Your task to perform on an android device: open app "Pluto TV - Live TV and Movies" Image 0: 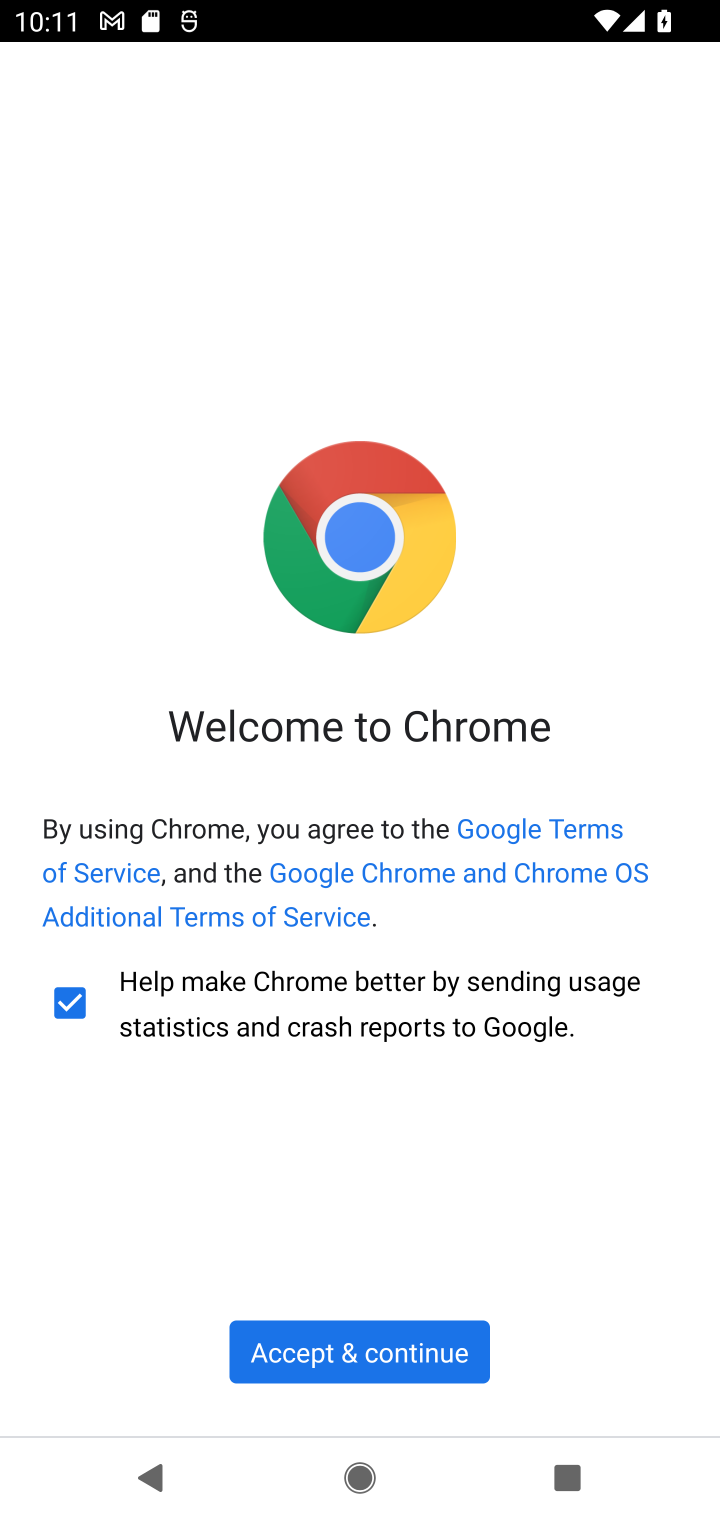
Step 0: press home button
Your task to perform on an android device: open app "Pluto TV - Live TV and Movies" Image 1: 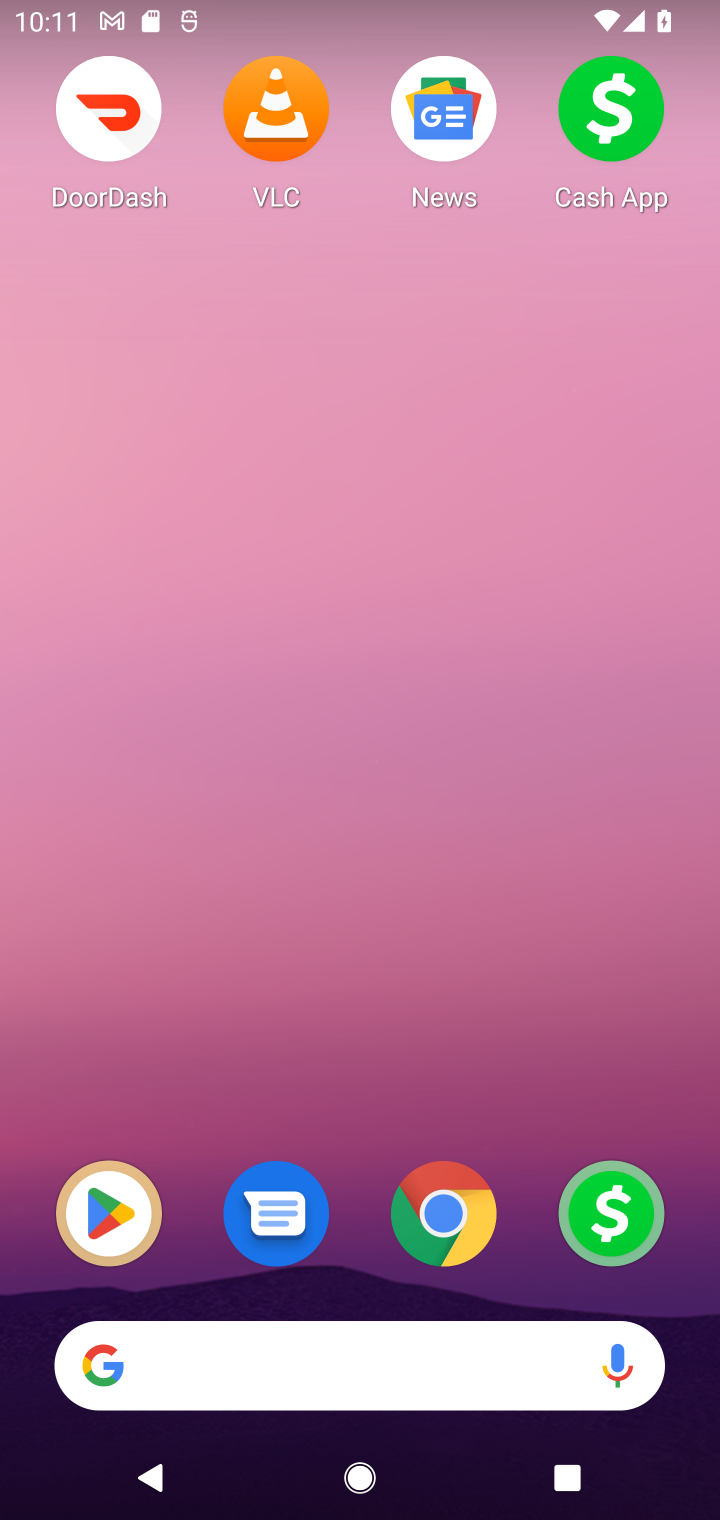
Step 1: click (115, 1229)
Your task to perform on an android device: open app "Pluto TV - Live TV and Movies" Image 2: 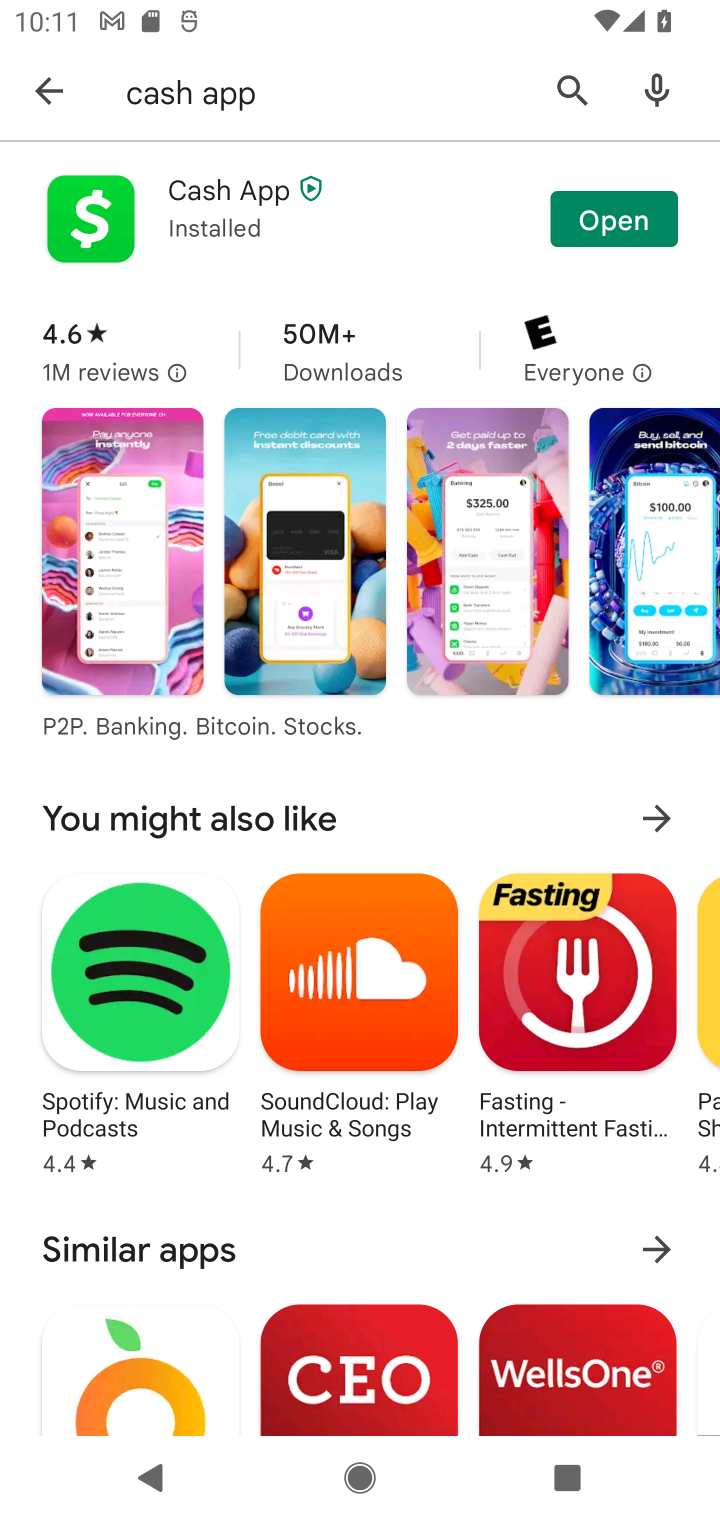
Step 2: click (46, 67)
Your task to perform on an android device: open app "Pluto TV - Live TV and Movies" Image 3: 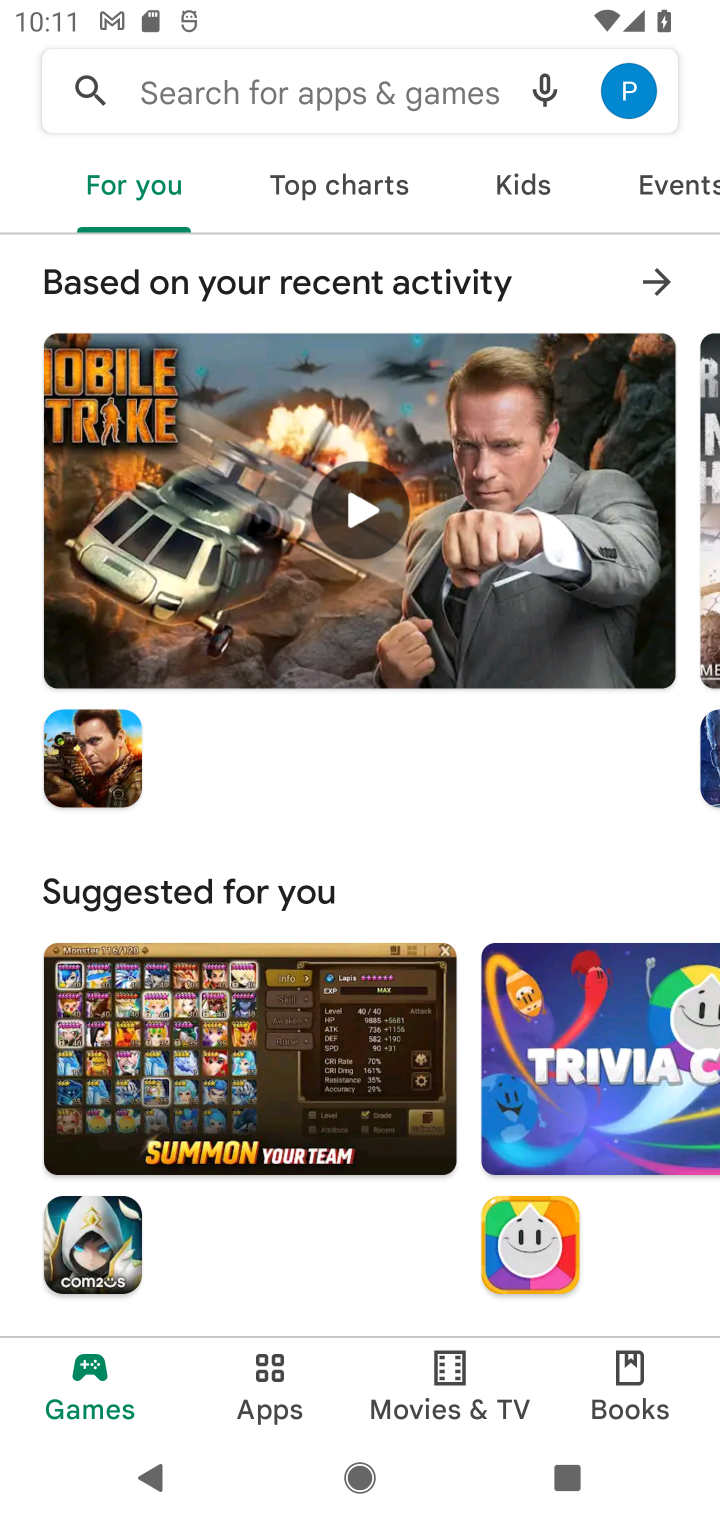
Step 3: click (210, 67)
Your task to perform on an android device: open app "Pluto TV - Live TV and Movies" Image 4: 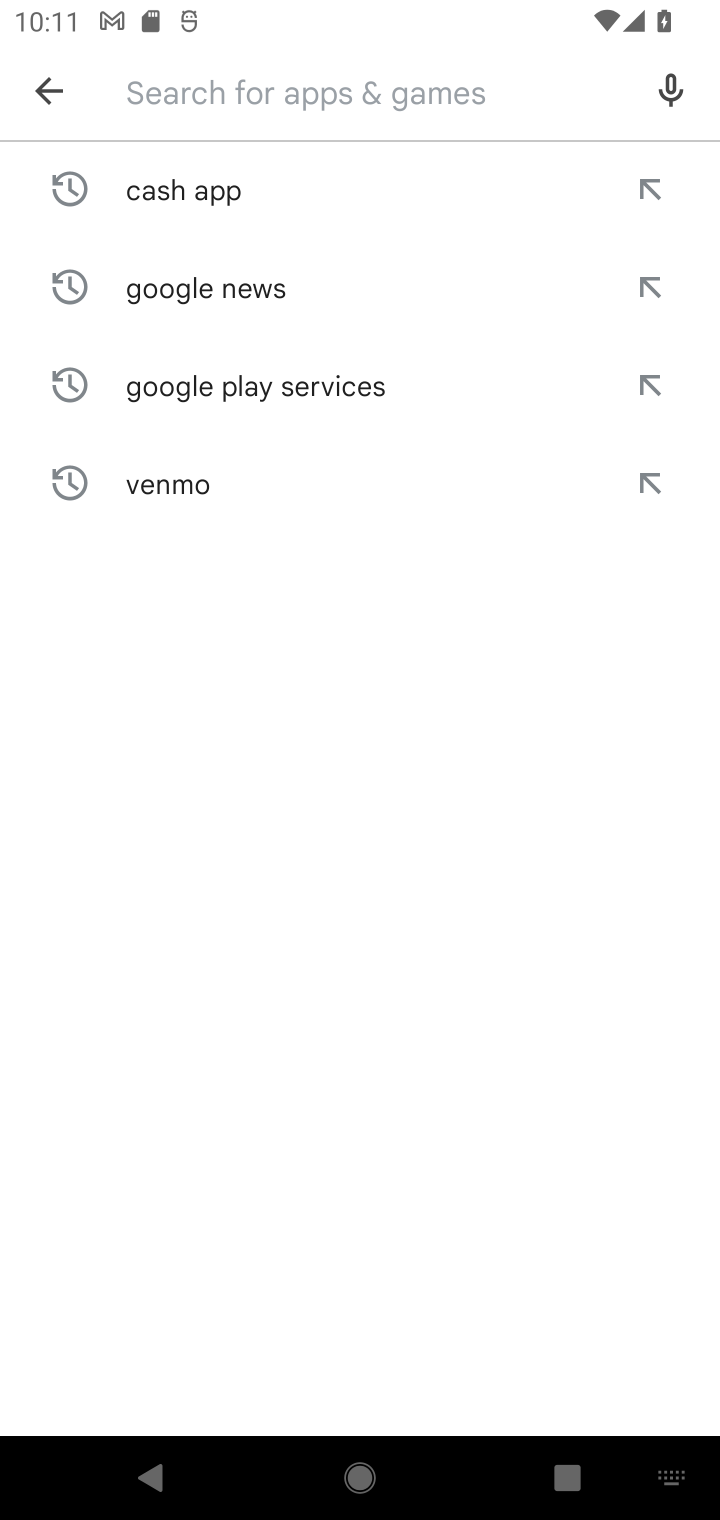
Step 4: type "Pluto TV - Live TV and Movies"
Your task to perform on an android device: open app "Pluto TV - Live TV and Movies" Image 5: 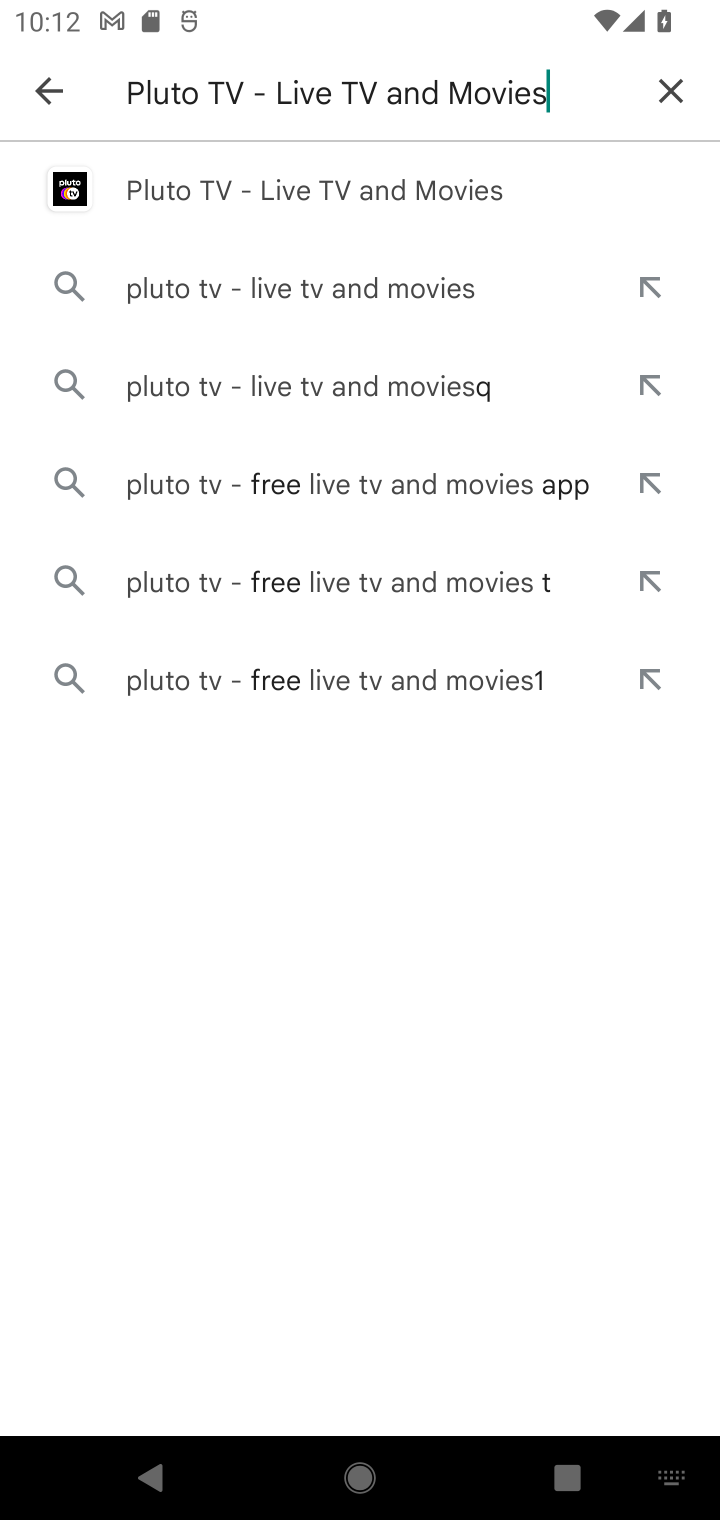
Step 5: click (325, 206)
Your task to perform on an android device: open app "Pluto TV - Live TV and Movies" Image 6: 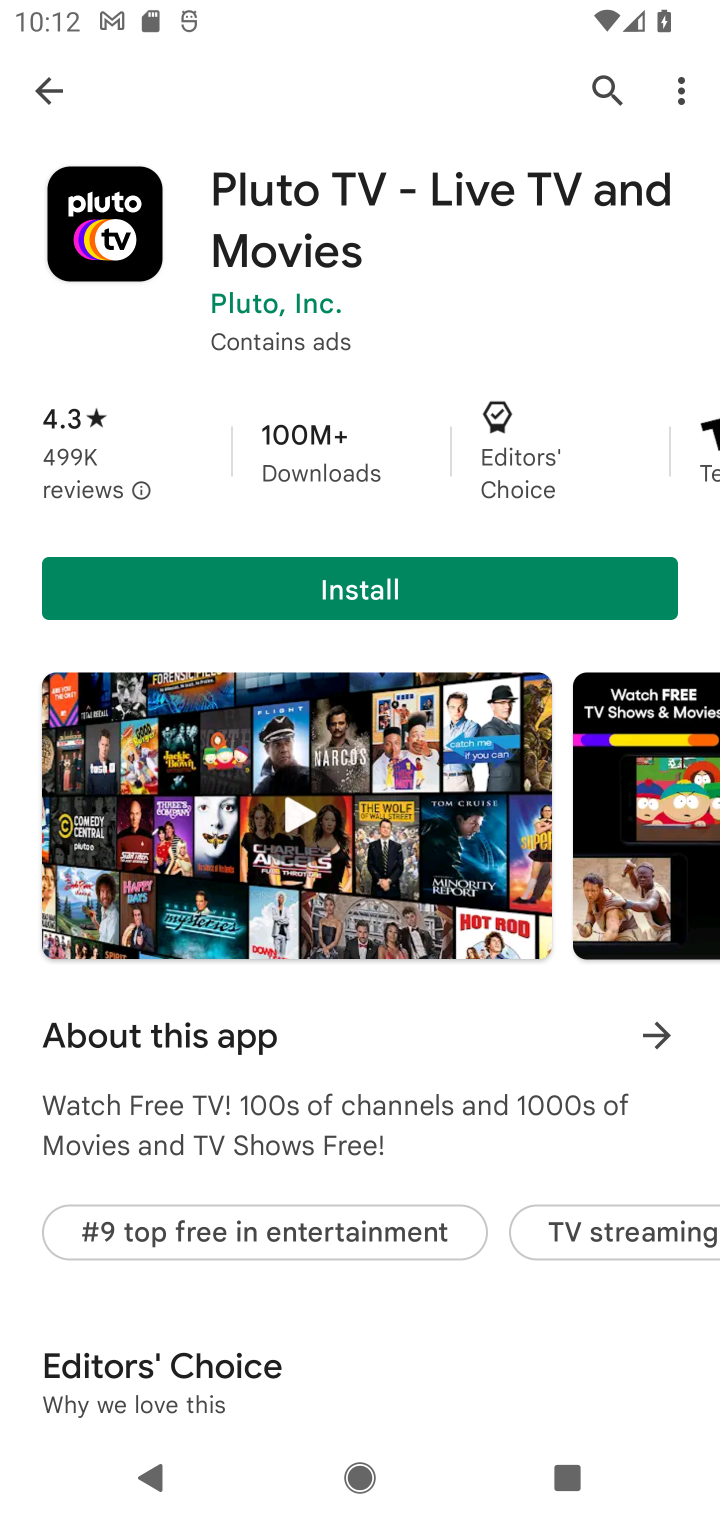
Step 6: click (334, 592)
Your task to perform on an android device: open app "Pluto TV - Live TV and Movies" Image 7: 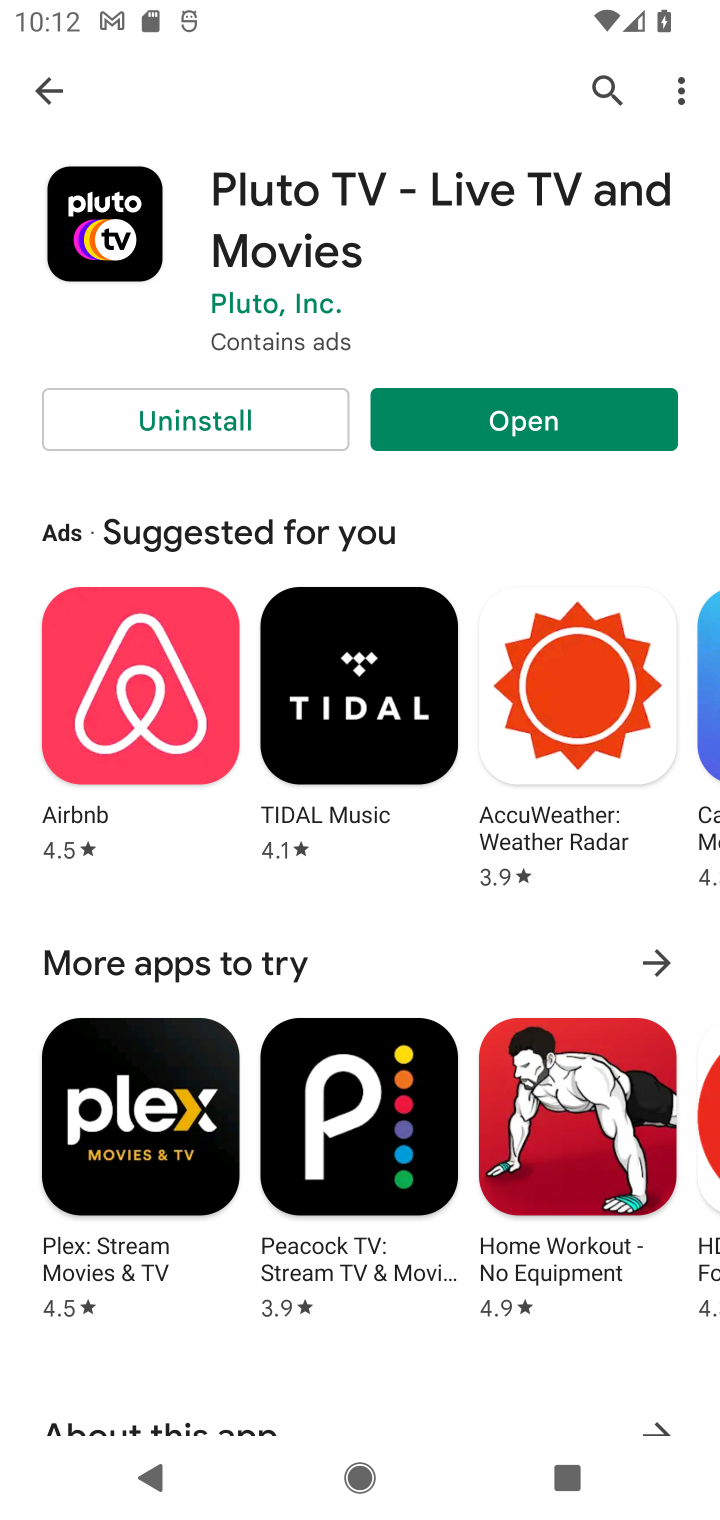
Step 7: click (486, 417)
Your task to perform on an android device: open app "Pluto TV - Live TV and Movies" Image 8: 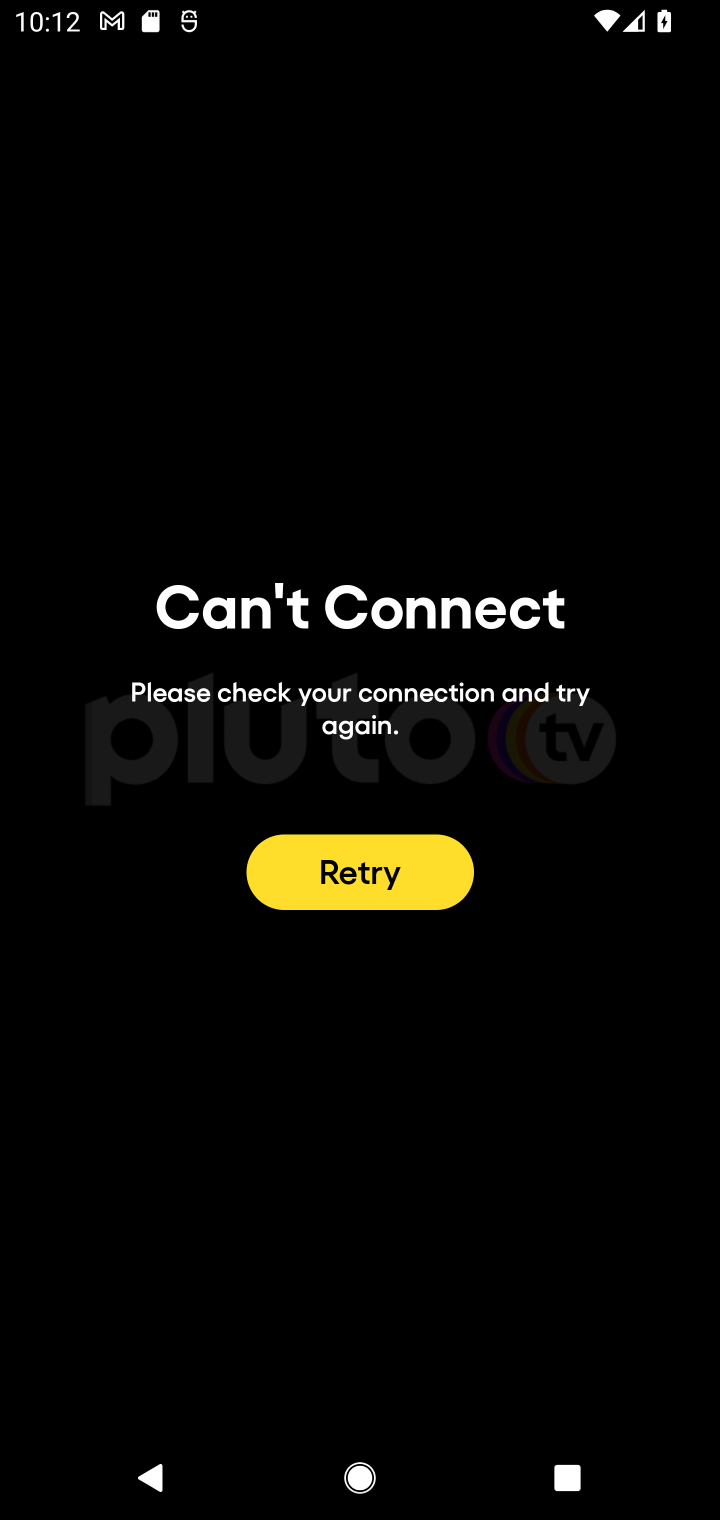
Step 8: task complete